Your task to perform on an android device: Go to Google Image 0: 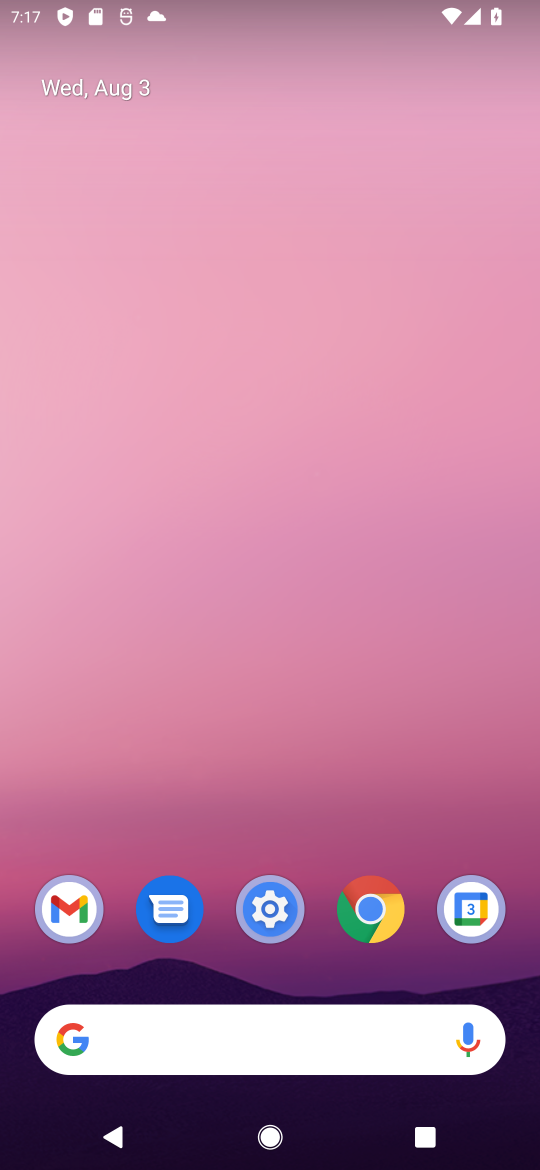
Step 0: press home button
Your task to perform on an android device: Go to Google Image 1: 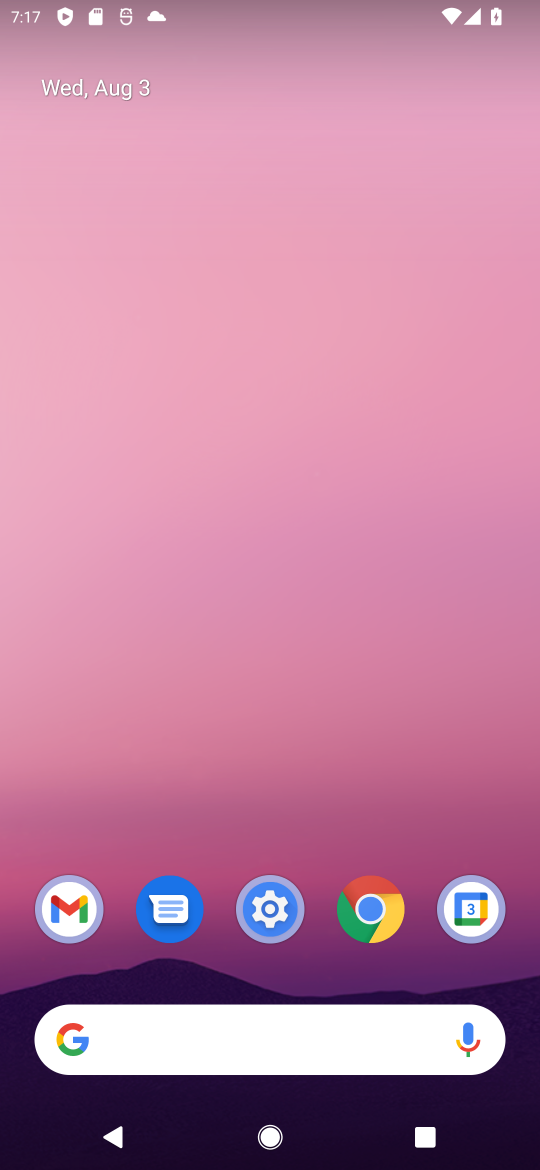
Step 1: drag from (406, 781) to (405, 180)
Your task to perform on an android device: Go to Google Image 2: 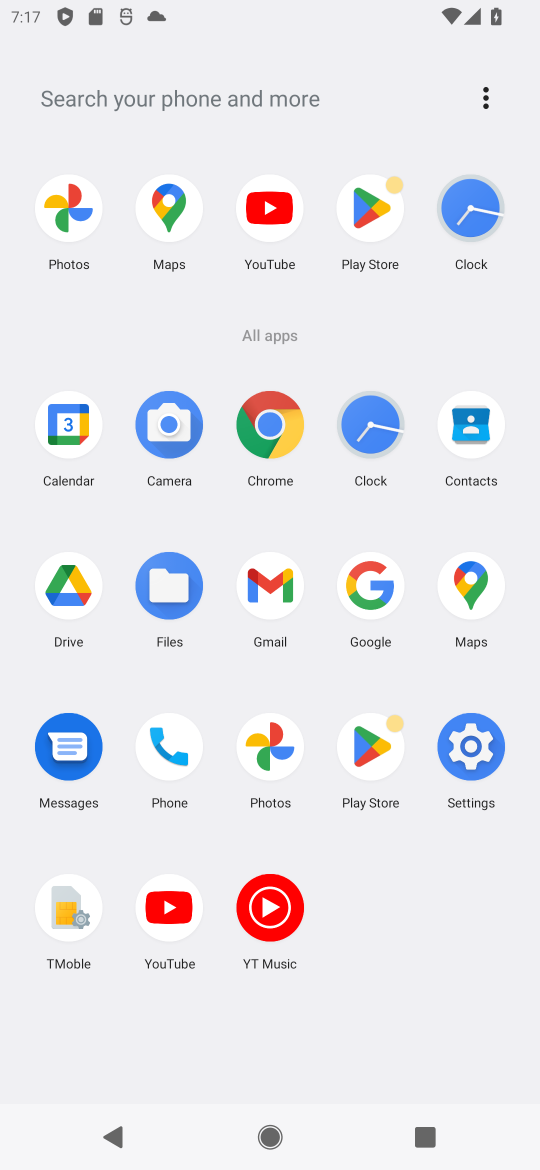
Step 2: click (384, 580)
Your task to perform on an android device: Go to Google Image 3: 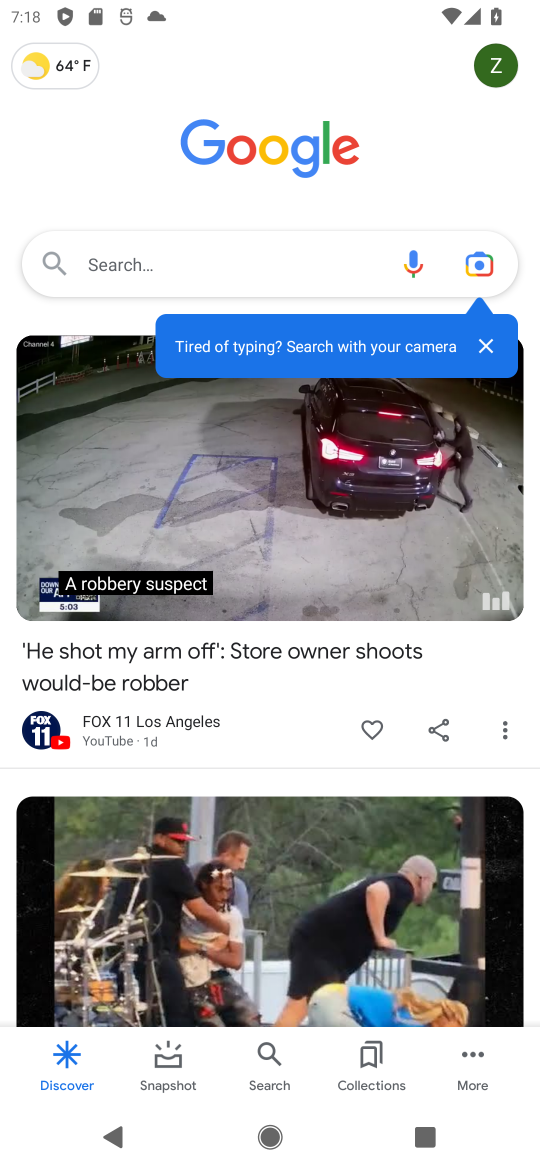
Step 3: task complete